Your task to perform on an android device: open app "Messages" Image 0: 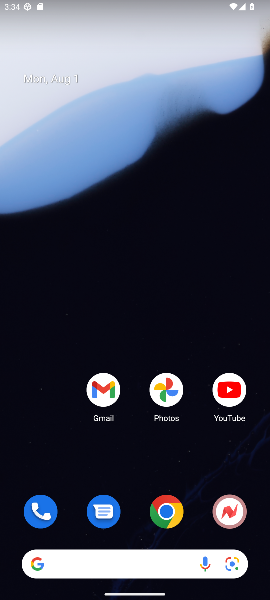
Step 0: click (119, 518)
Your task to perform on an android device: open app "Messages" Image 1: 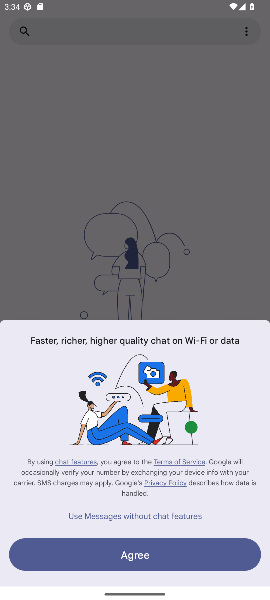
Step 1: click (172, 549)
Your task to perform on an android device: open app "Messages" Image 2: 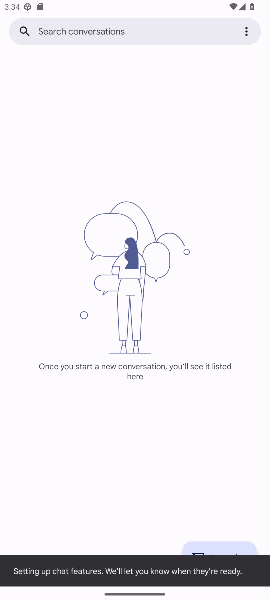
Step 2: click (207, 549)
Your task to perform on an android device: open app "Messages" Image 3: 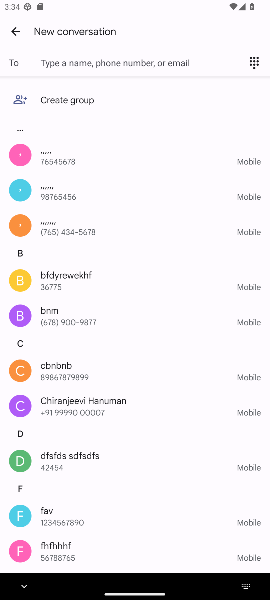
Step 3: task complete